Your task to perform on an android device: toggle wifi Image 0: 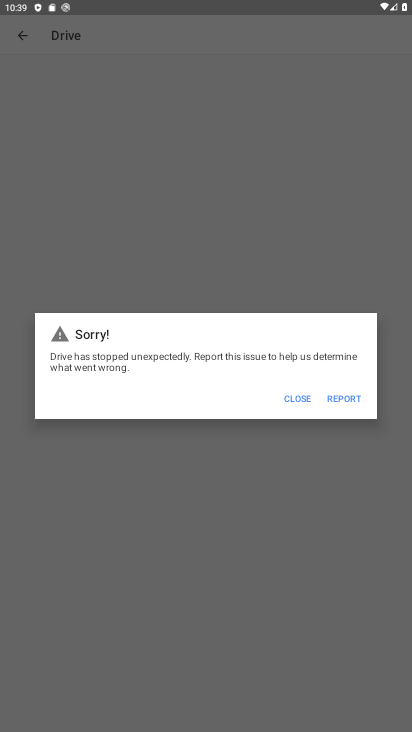
Step 0: press home button
Your task to perform on an android device: toggle wifi Image 1: 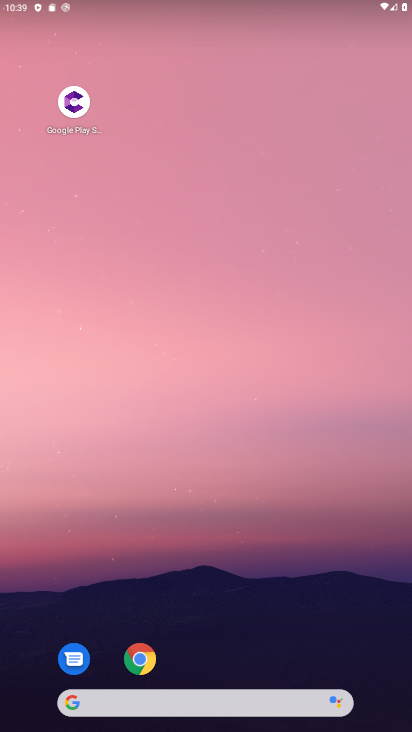
Step 1: drag from (211, 615) to (210, 50)
Your task to perform on an android device: toggle wifi Image 2: 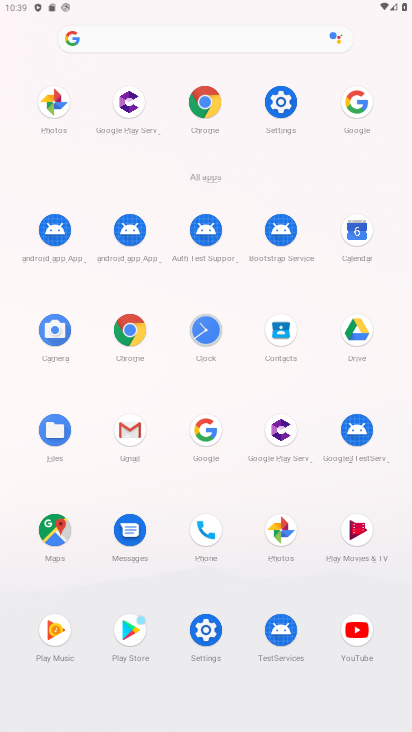
Step 2: click (270, 89)
Your task to perform on an android device: toggle wifi Image 3: 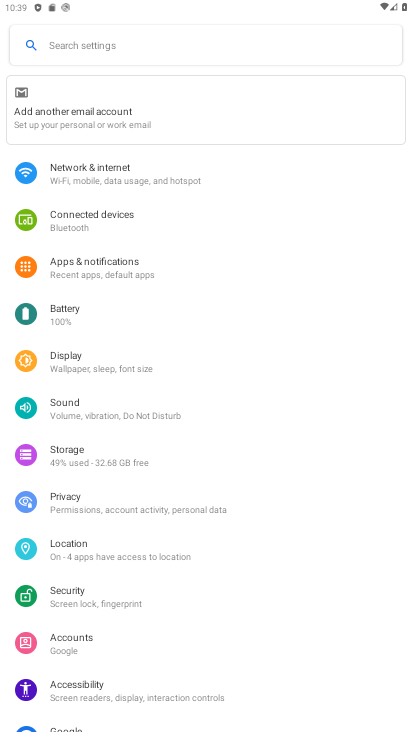
Step 3: click (133, 175)
Your task to perform on an android device: toggle wifi Image 4: 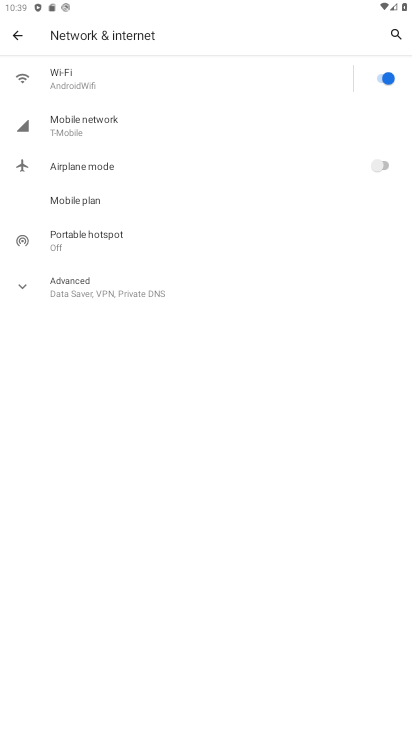
Step 4: click (382, 72)
Your task to perform on an android device: toggle wifi Image 5: 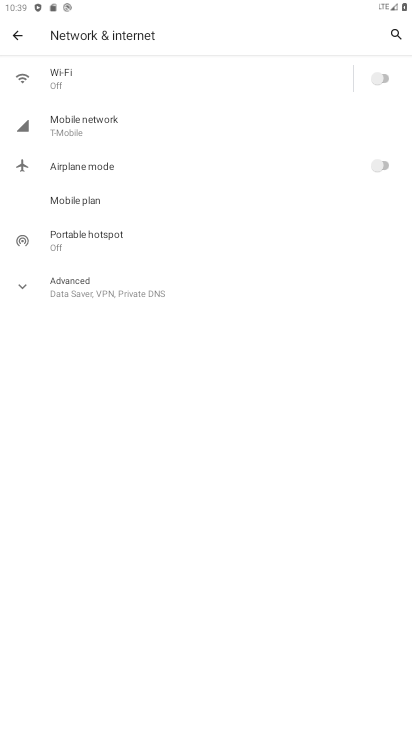
Step 5: task complete